Your task to perform on an android device: open a bookmark in the chrome app Image 0: 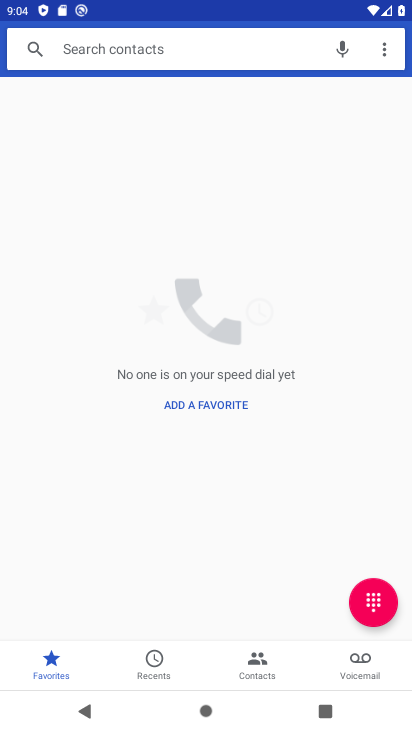
Step 0: press home button
Your task to perform on an android device: open a bookmark in the chrome app Image 1: 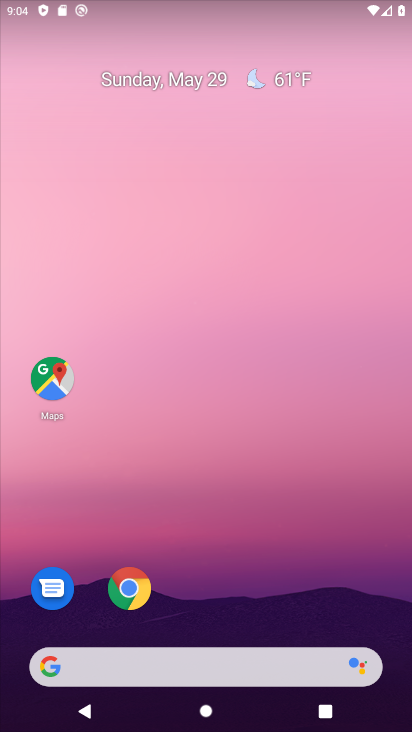
Step 1: drag from (378, 540) to (344, 223)
Your task to perform on an android device: open a bookmark in the chrome app Image 2: 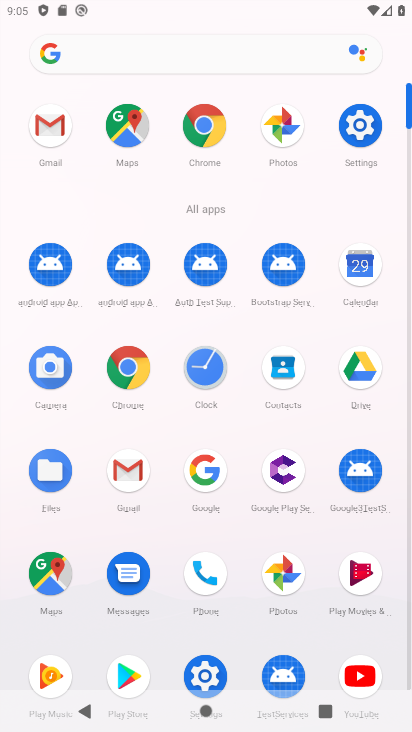
Step 2: click (206, 123)
Your task to perform on an android device: open a bookmark in the chrome app Image 3: 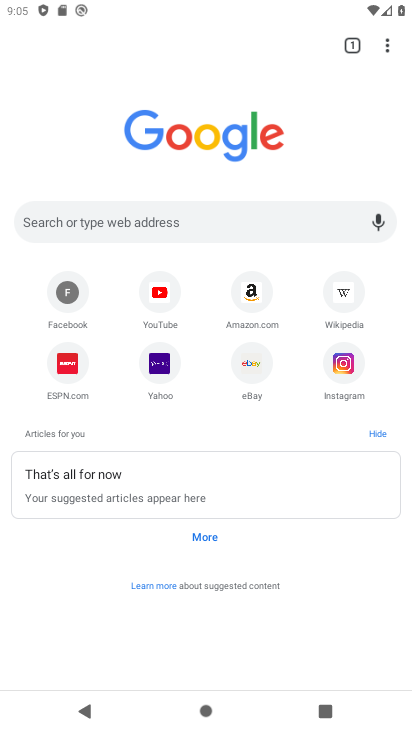
Step 3: drag from (395, 41) to (247, 174)
Your task to perform on an android device: open a bookmark in the chrome app Image 4: 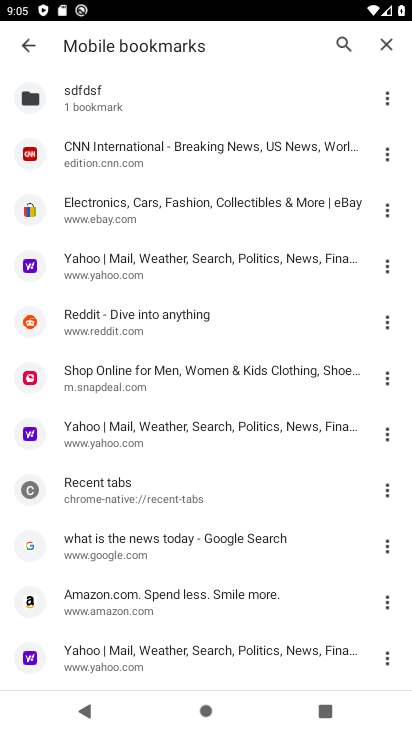
Step 4: click (169, 330)
Your task to perform on an android device: open a bookmark in the chrome app Image 5: 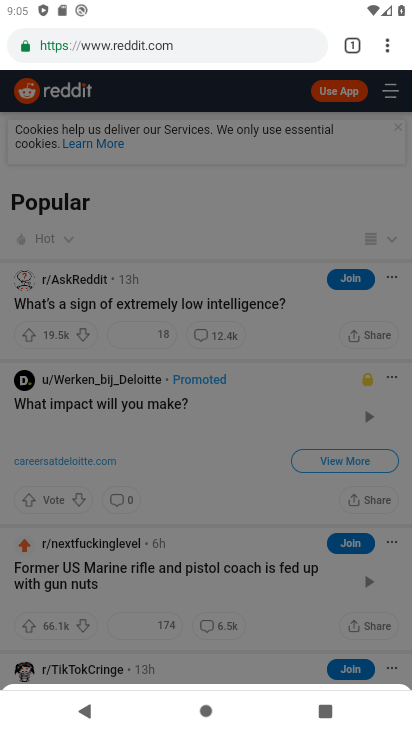
Step 5: task complete